Your task to perform on an android device: Open the Play Movies app and select the watchlist tab. Image 0: 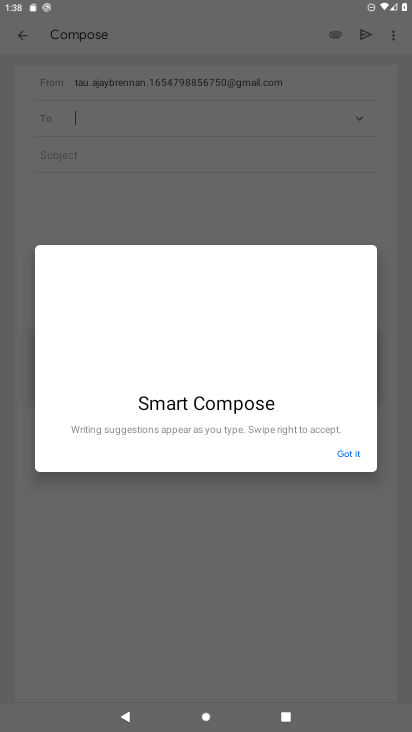
Step 0: press home button
Your task to perform on an android device: Open the Play Movies app and select the watchlist tab. Image 1: 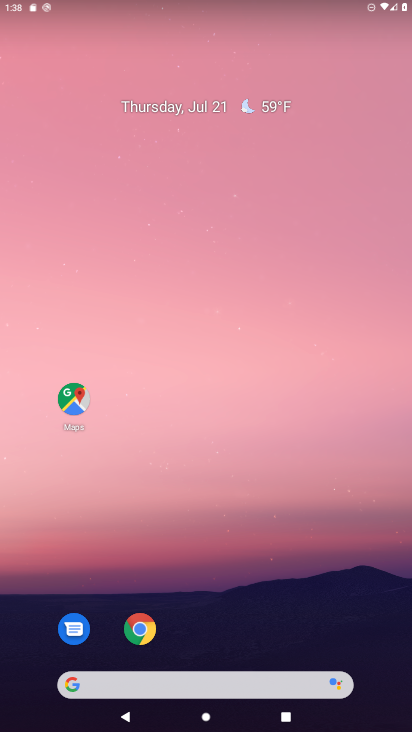
Step 1: drag from (368, 651) to (342, 119)
Your task to perform on an android device: Open the Play Movies app and select the watchlist tab. Image 2: 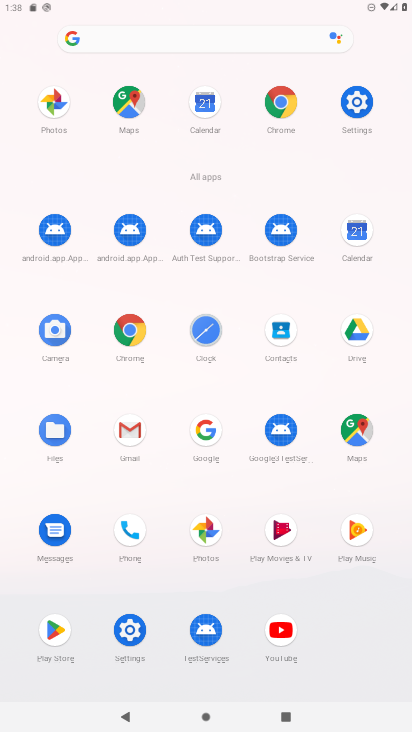
Step 2: click (278, 526)
Your task to perform on an android device: Open the Play Movies app and select the watchlist tab. Image 3: 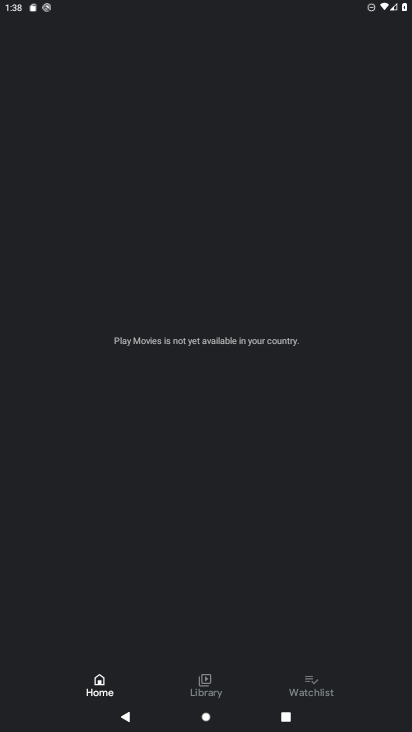
Step 3: click (314, 684)
Your task to perform on an android device: Open the Play Movies app and select the watchlist tab. Image 4: 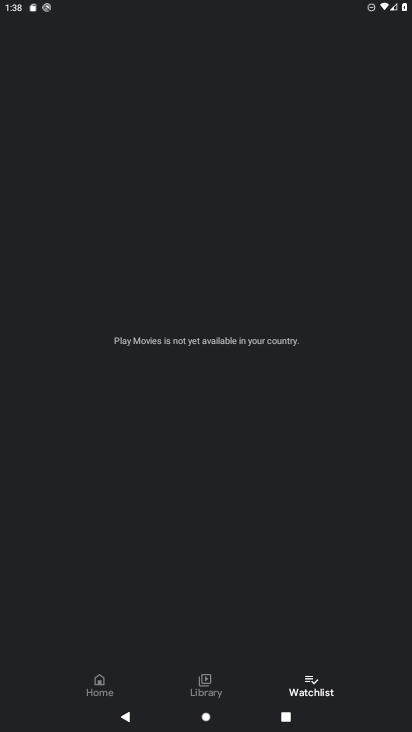
Step 4: task complete